Your task to perform on an android device: toggle data saver in the chrome app Image 0: 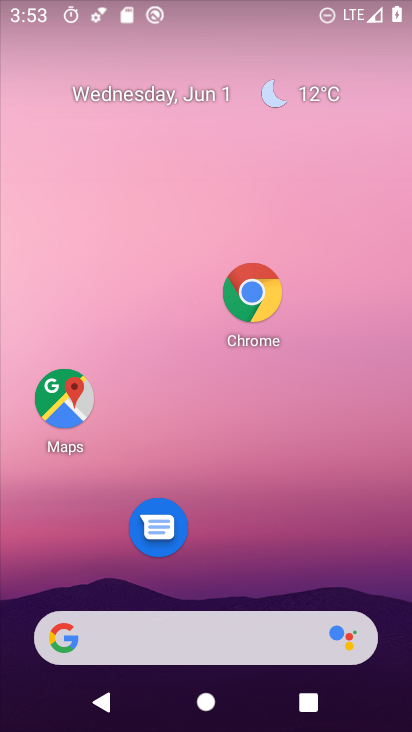
Step 0: drag from (266, 563) to (301, 154)
Your task to perform on an android device: toggle data saver in the chrome app Image 1: 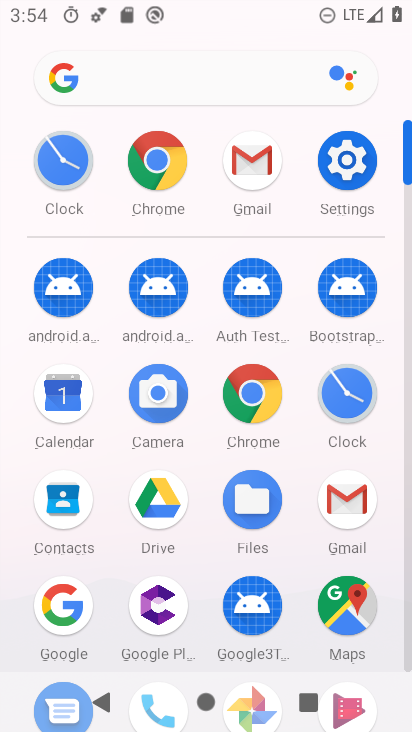
Step 1: click (163, 162)
Your task to perform on an android device: toggle data saver in the chrome app Image 2: 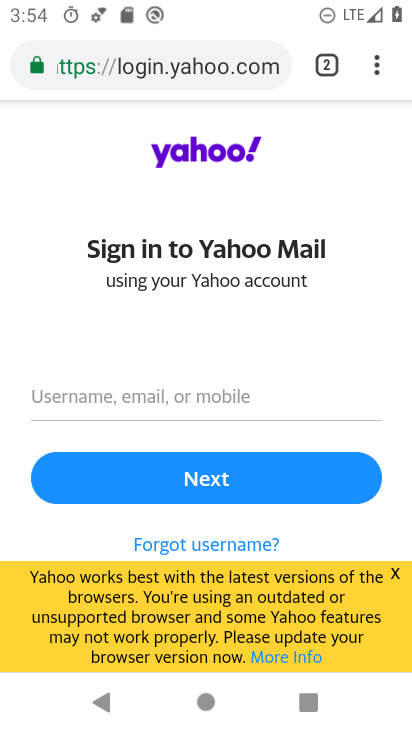
Step 2: click (379, 71)
Your task to perform on an android device: toggle data saver in the chrome app Image 3: 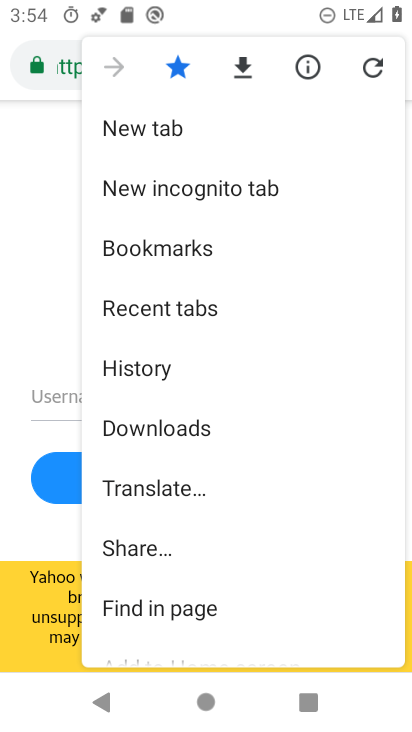
Step 3: drag from (210, 467) to (205, 222)
Your task to perform on an android device: toggle data saver in the chrome app Image 4: 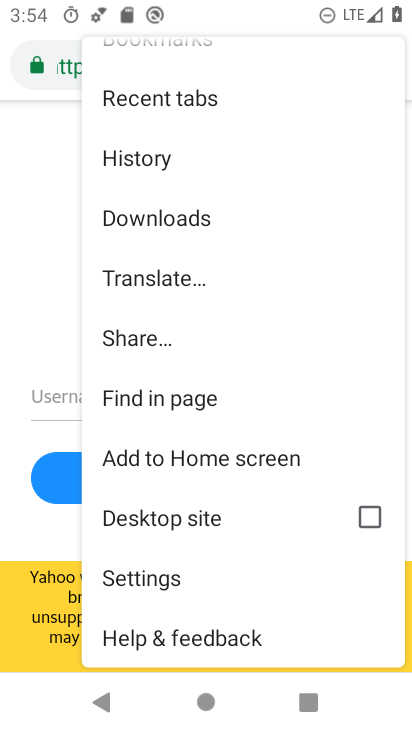
Step 4: click (144, 582)
Your task to perform on an android device: toggle data saver in the chrome app Image 5: 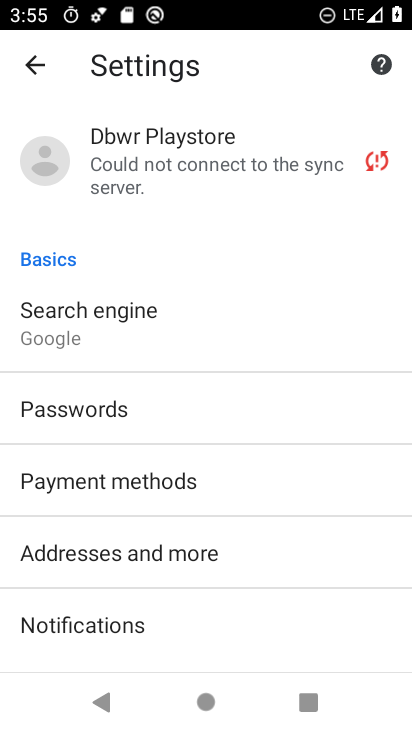
Step 5: drag from (150, 566) to (396, 462)
Your task to perform on an android device: toggle data saver in the chrome app Image 6: 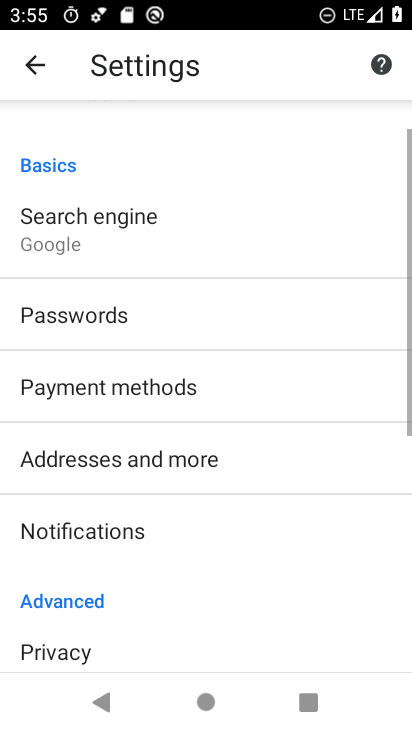
Step 6: drag from (107, 502) to (169, 26)
Your task to perform on an android device: toggle data saver in the chrome app Image 7: 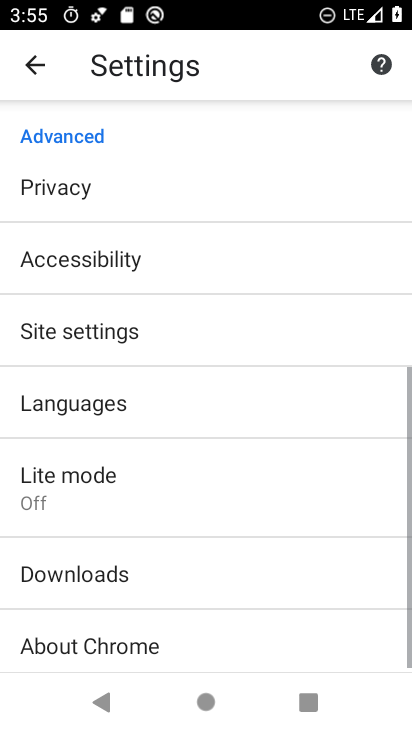
Step 7: click (140, 491)
Your task to perform on an android device: toggle data saver in the chrome app Image 8: 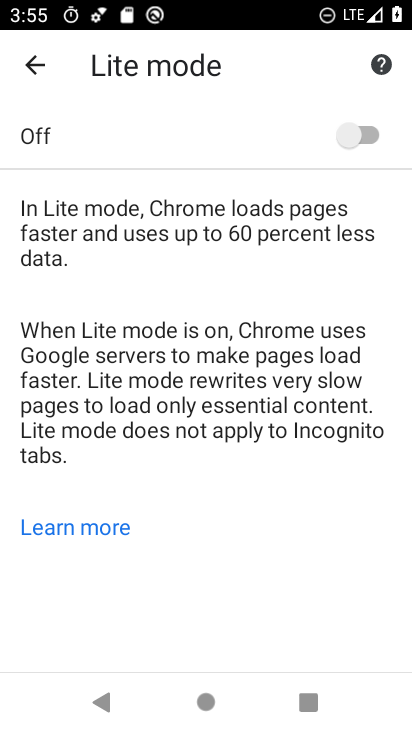
Step 8: click (365, 141)
Your task to perform on an android device: toggle data saver in the chrome app Image 9: 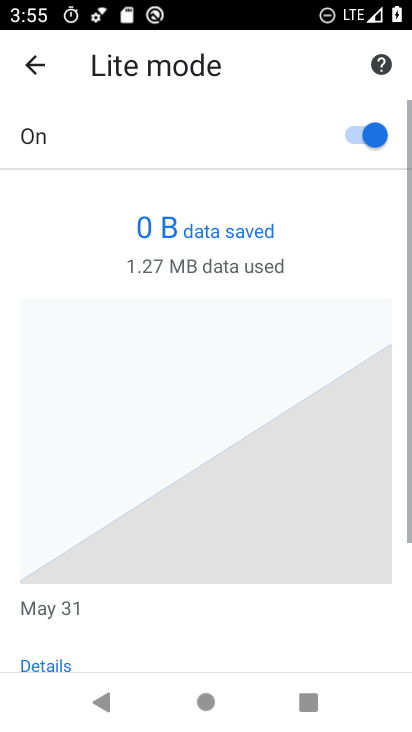
Step 9: task complete